Your task to perform on an android device: turn off improve location accuracy Image 0: 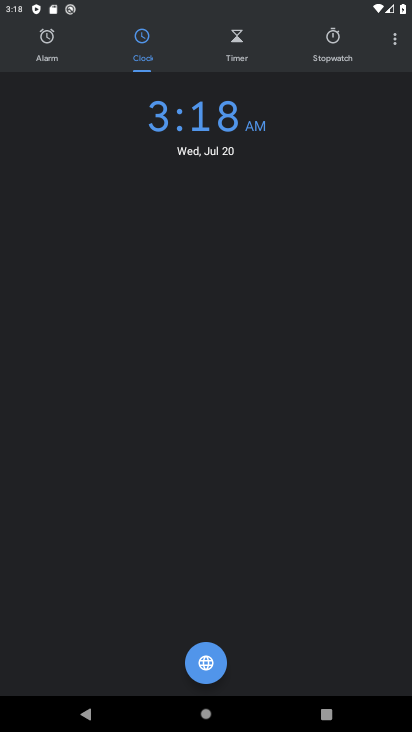
Step 0: press home button
Your task to perform on an android device: turn off improve location accuracy Image 1: 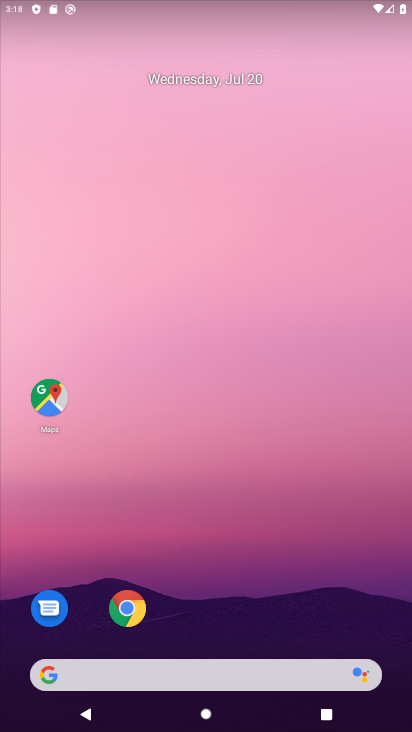
Step 1: drag from (215, 632) to (159, 299)
Your task to perform on an android device: turn off improve location accuracy Image 2: 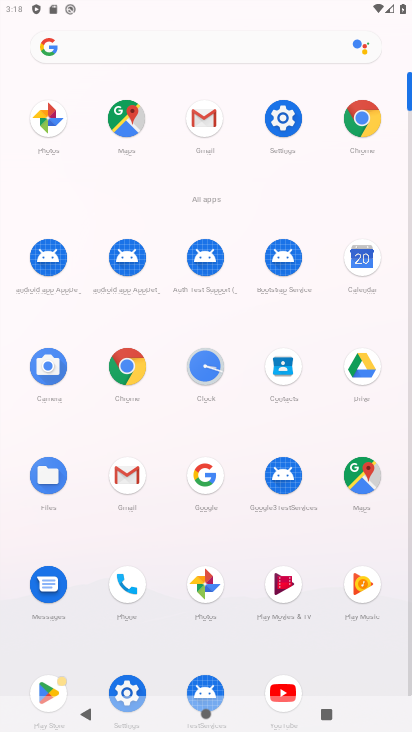
Step 2: click (123, 690)
Your task to perform on an android device: turn off improve location accuracy Image 3: 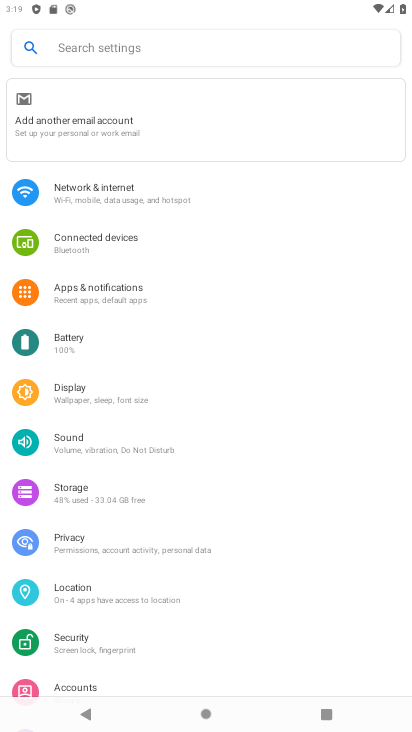
Step 3: click (104, 605)
Your task to perform on an android device: turn off improve location accuracy Image 4: 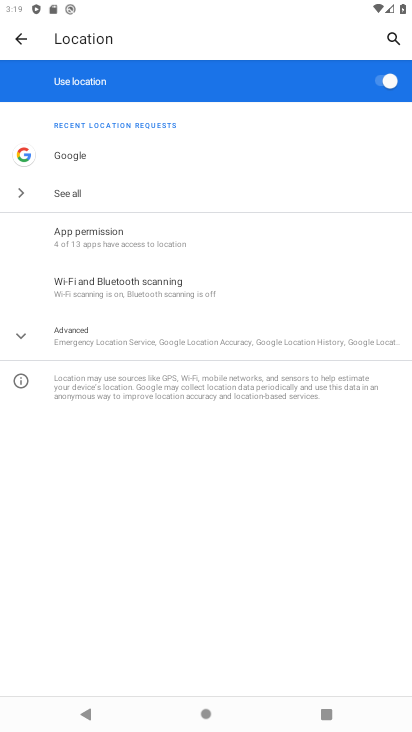
Step 4: click (112, 349)
Your task to perform on an android device: turn off improve location accuracy Image 5: 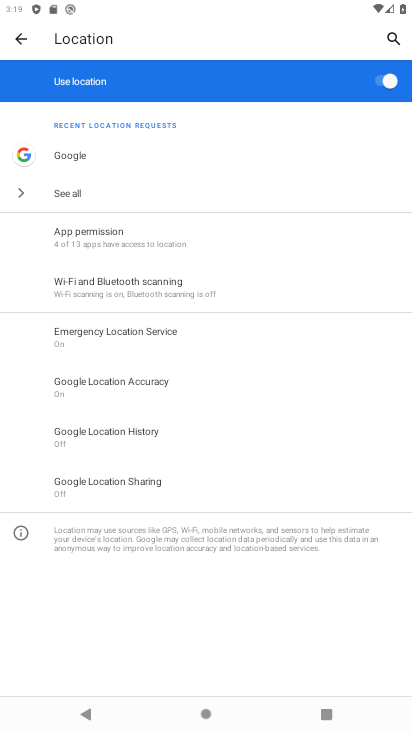
Step 5: task complete